Your task to perform on an android device: Go to privacy settings Image 0: 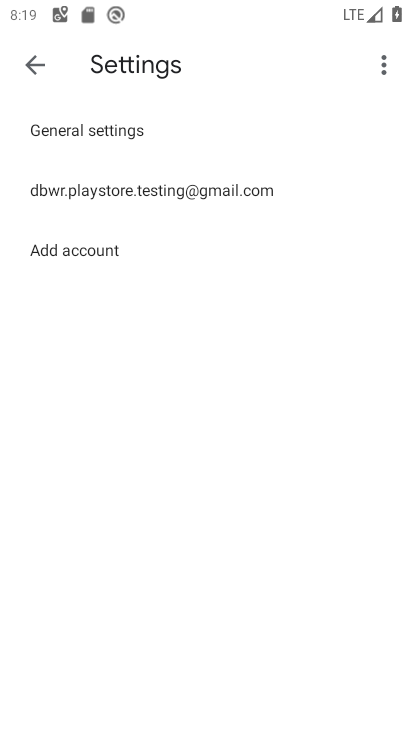
Step 0: press home button
Your task to perform on an android device: Go to privacy settings Image 1: 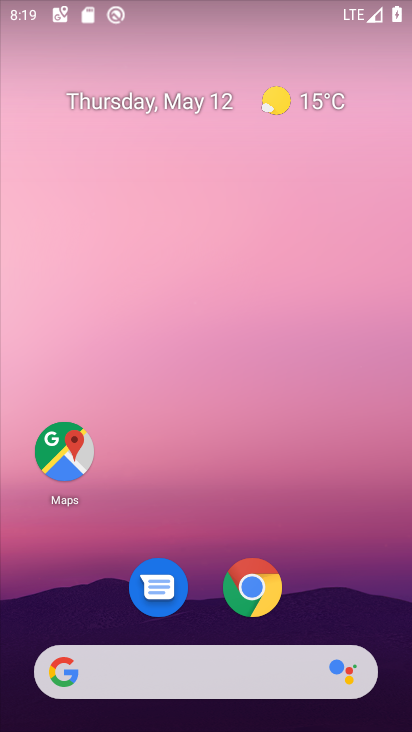
Step 1: drag from (398, 639) to (233, 1)
Your task to perform on an android device: Go to privacy settings Image 2: 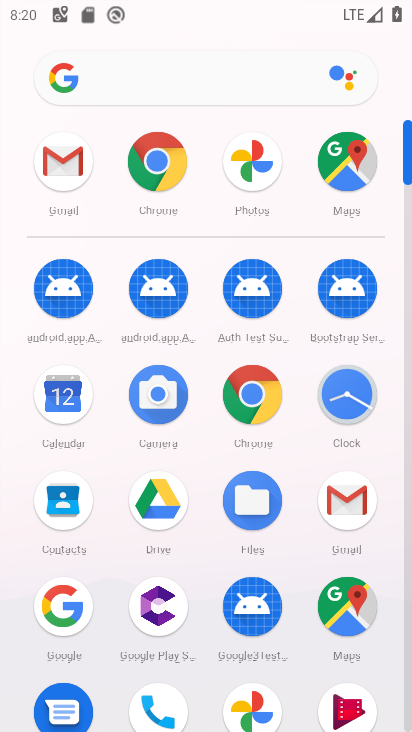
Step 2: drag from (289, 634) to (309, 237)
Your task to perform on an android device: Go to privacy settings Image 3: 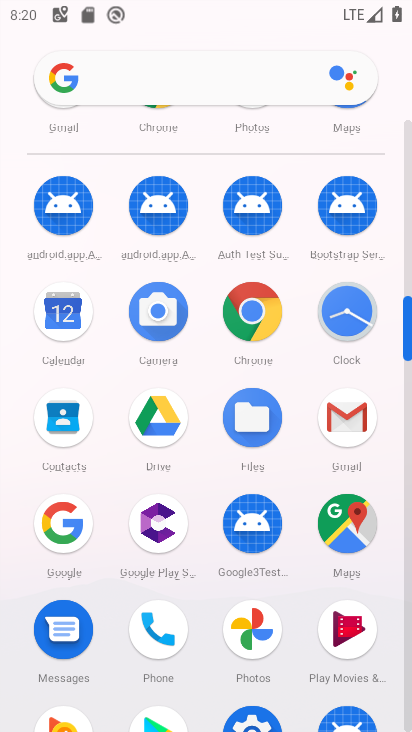
Step 3: click (242, 720)
Your task to perform on an android device: Go to privacy settings Image 4: 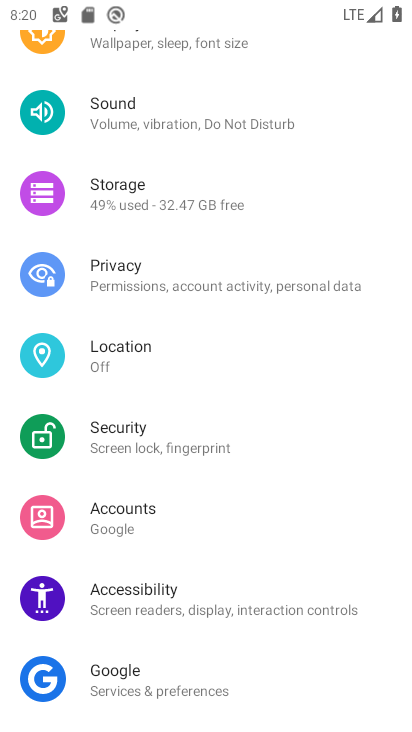
Step 4: click (224, 270)
Your task to perform on an android device: Go to privacy settings Image 5: 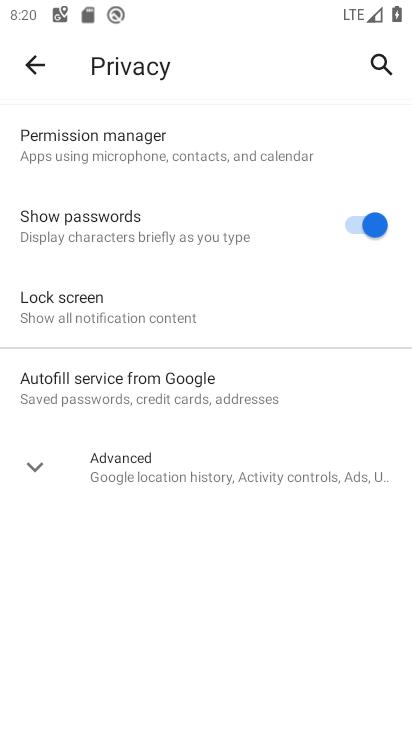
Step 5: task complete